Your task to perform on an android device: toggle airplane mode Image 0: 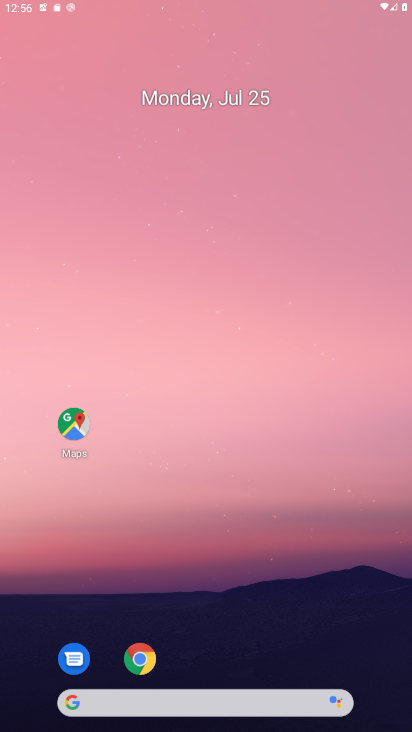
Step 0: drag from (251, 586) to (292, 76)
Your task to perform on an android device: toggle airplane mode Image 1: 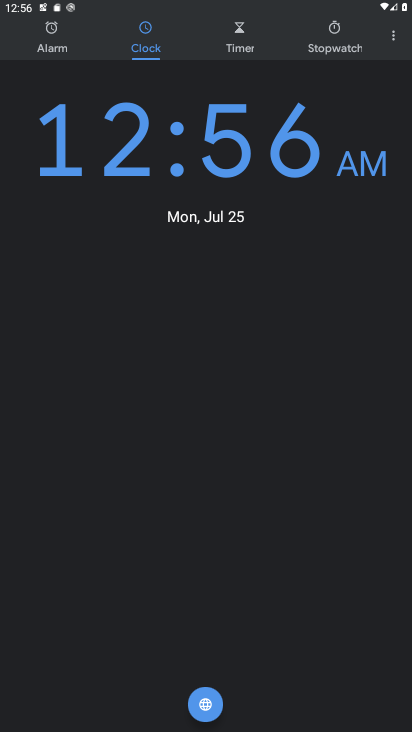
Step 1: drag from (271, 7) to (258, 379)
Your task to perform on an android device: toggle airplane mode Image 2: 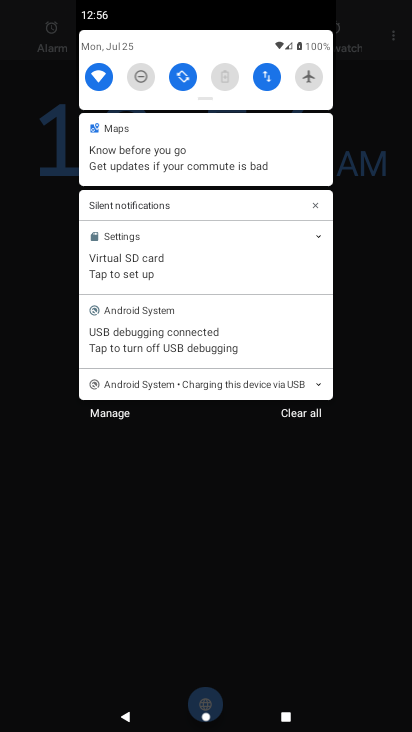
Step 2: click (303, 77)
Your task to perform on an android device: toggle airplane mode Image 3: 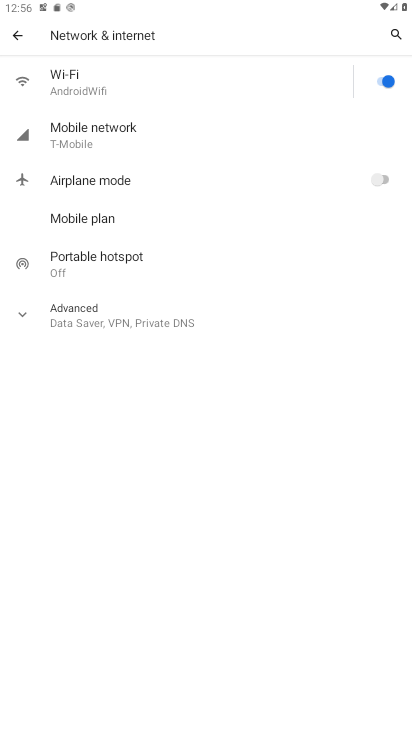
Step 3: click (385, 181)
Your task to perform on an android device: toggle airplane mode Image 4: 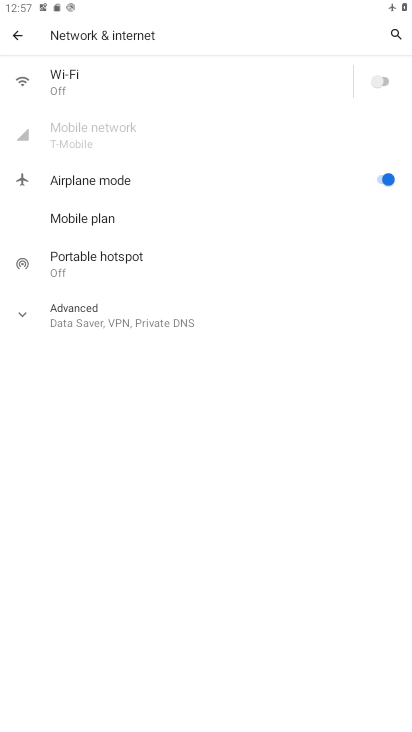
Step 4: task complete